Your task to perform on an android device: turn on notifications settings in the gmail app Image 0: 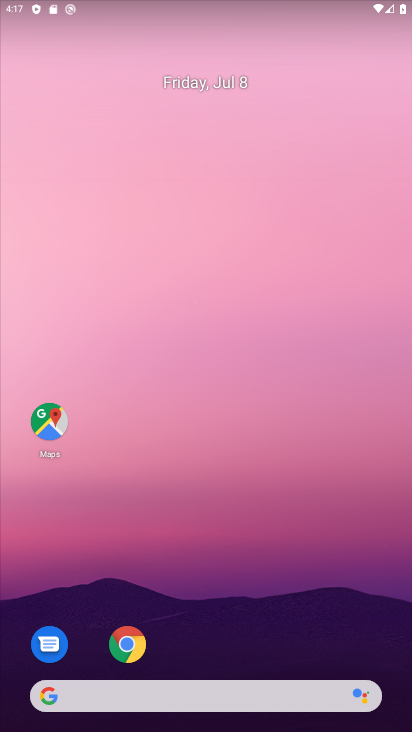
Step 0: drag from (181, 581) to (170, 225)
Your task to perform on an android device: turn on notifications settings in the gmail app Image 1: 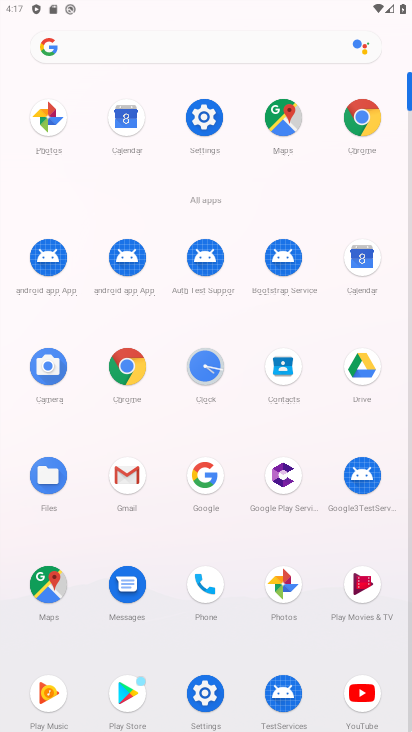
Step 1: click (122, 489)
Your task to perform on an android device: turn on notifications settings in the gmail app Image 2: 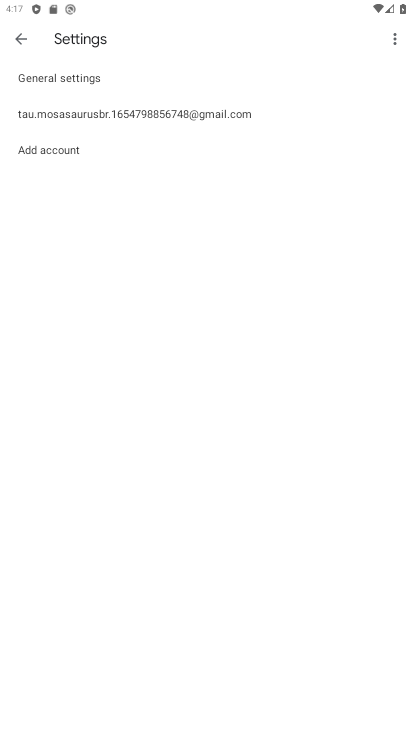
Step 2: click (79, 106)
Your task to perform on an android device: turn on notifications settings in the gmail app Image 3: 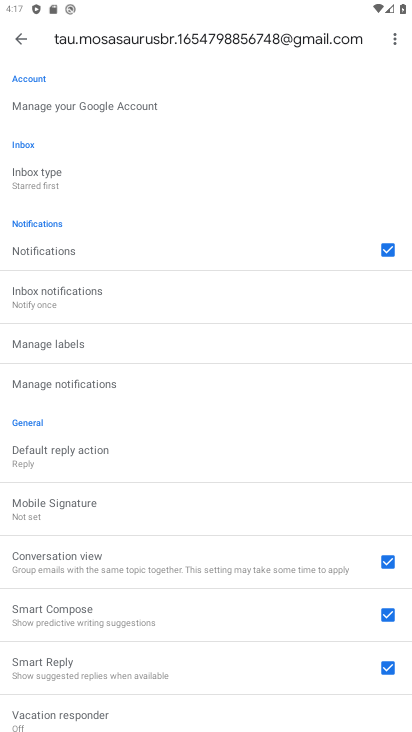
Step 3: click (144, 384)
Your task to perform on an android device: turn on notifications settings in the gmail app Image 4: 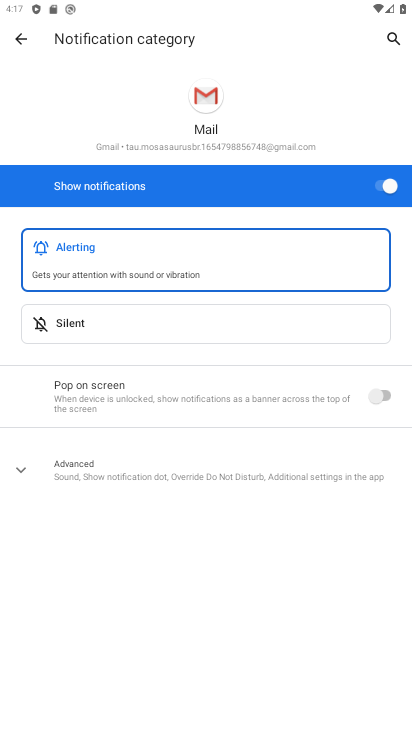
Step 4: task complete